Your task to perform on an android device: turn off airplane mode Image 0: 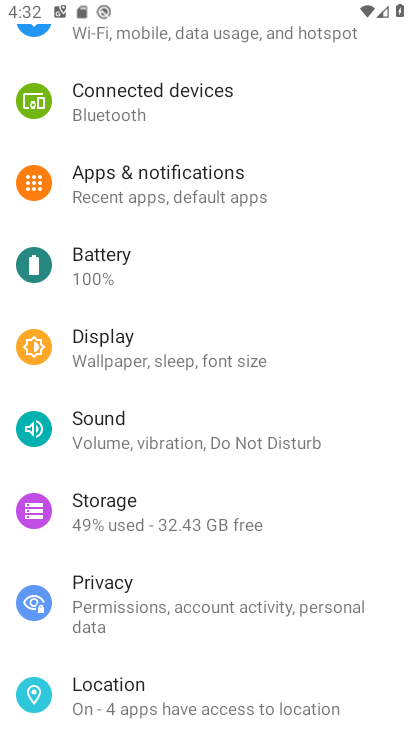
Step 0: drag from (251, 253) to (251, 595)
Your task to perform on an android device: turn off airplane mode Image 1: 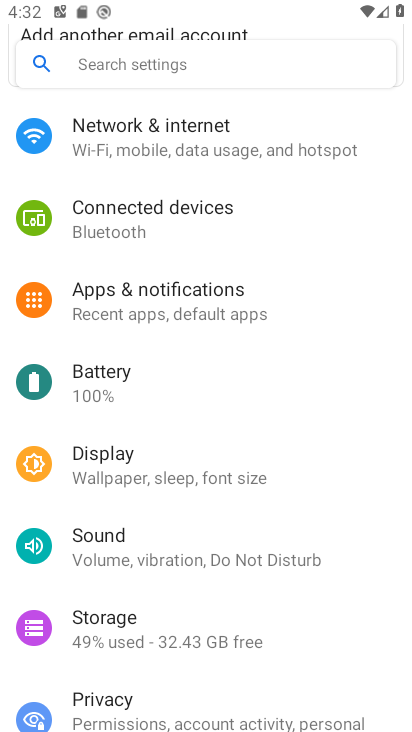
Step 1: click (225, 155)
Your task to perform on an android device: turn off airplane mode Image 2: 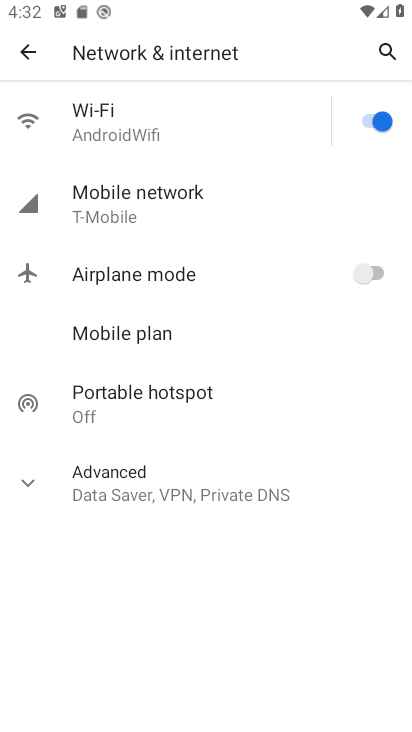
Step 2: task complete